Your task to perform on an android device: Check the news Image 0: 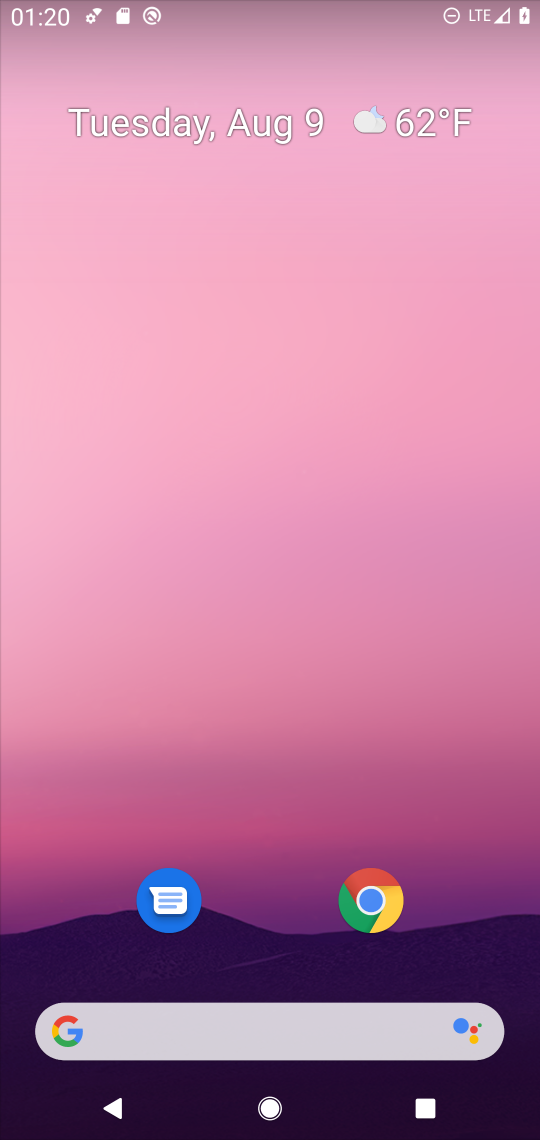
Step 0: press home button
Your task to perform on an android device: Check the news Image 1: 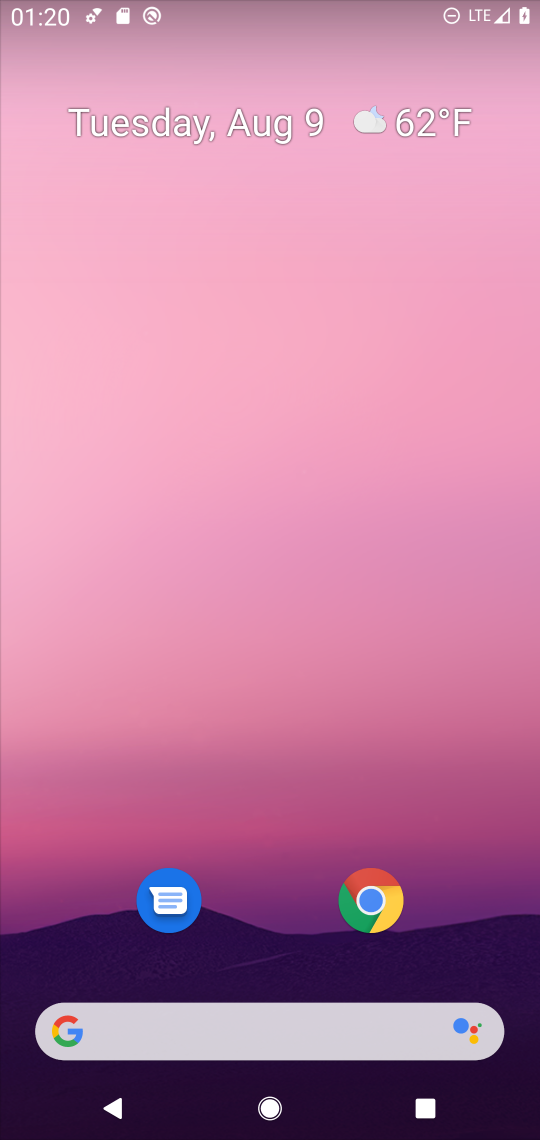
Step 1: task complete